Your task to perform on an android device: change the clock display to digital Image 0: 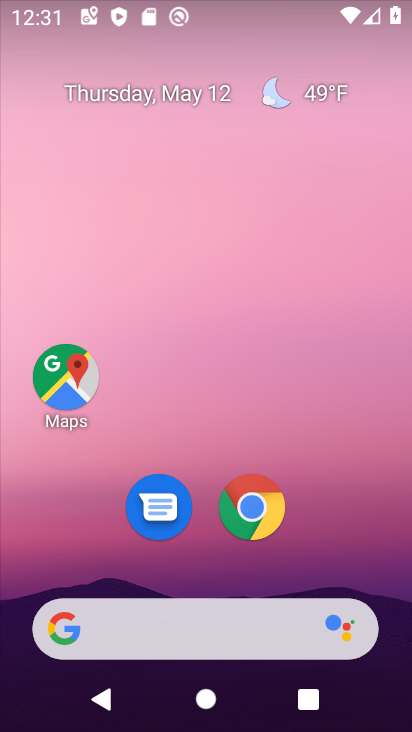
Step 0: drag from (331, 542) to (318, 48)
Your task to perform on an android device: change the clock display to digital Image 1: 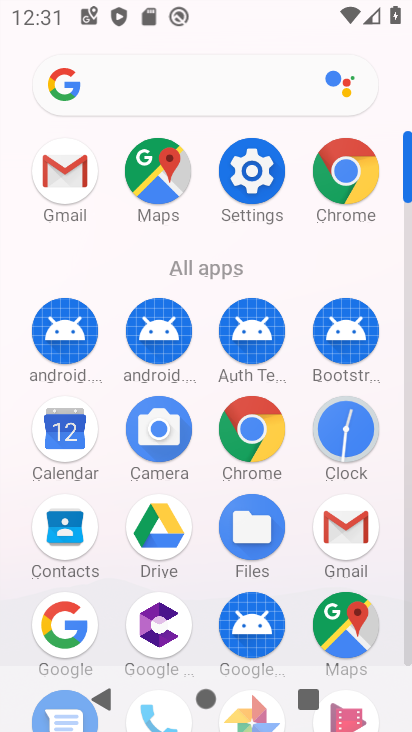
Step 1: click (259, 176)
Your task to perform on an android device: change the clock display to digital Image 2: 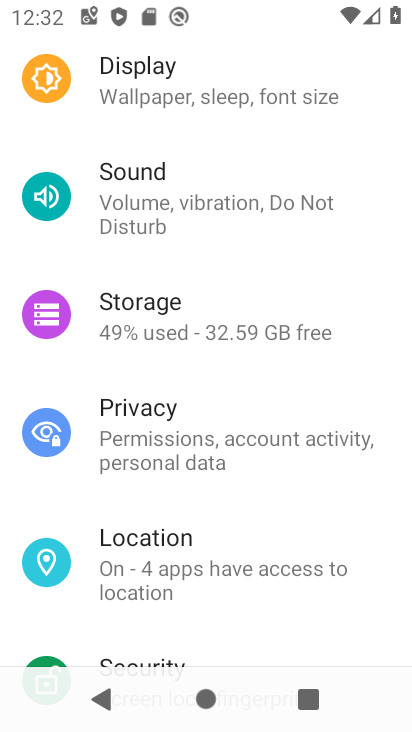
Step 2: press home button
Your task to perform on an android device: change the clock display to digital Image 3: 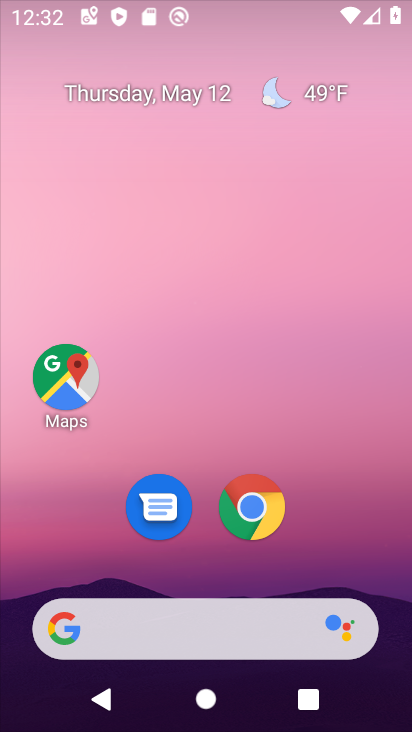
Step 3: drag from (292, 581) to (297, 11)
Your task to perform on an android device: change the clock display to digital Image 4: 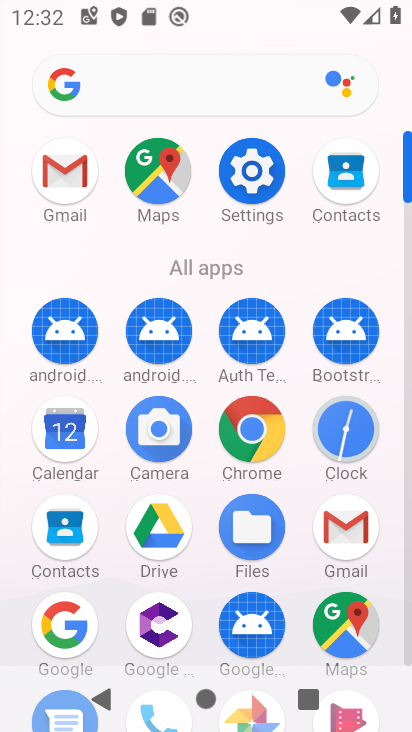
Step 4: click (353, 418)
Your task to perform on an android device: change the clock display to digital Image 5: 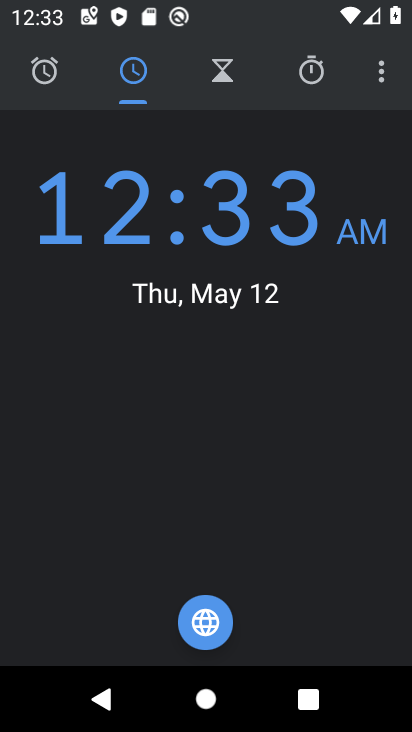
Step 5: click (371, 88)
Your task to perform on an android device: change the clock display to digital Image 6: 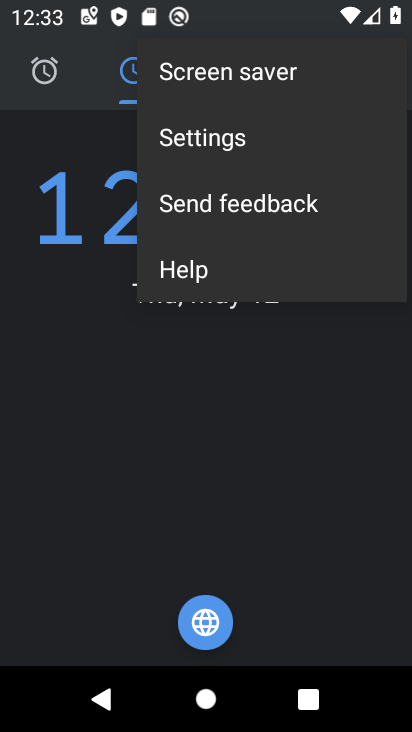
Step 6: click (253, 128)
Your task to perform on an android device: change the clock display to digital Image 7: 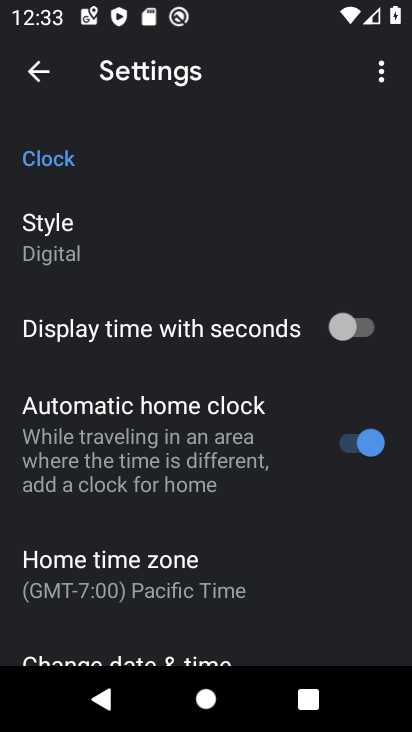
Step 7: click (99, 260)
Your task to perform on an android device: change the clock display to digital Image 8: 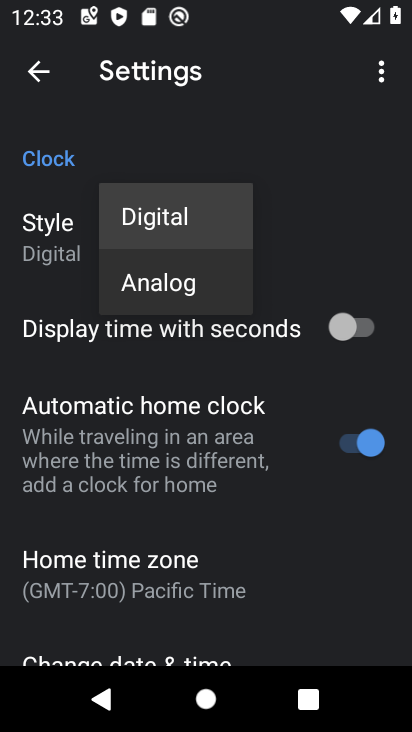
Step 8: click (191, 226)
Your task to perform on an android device: change the clock display to digital Image 9: 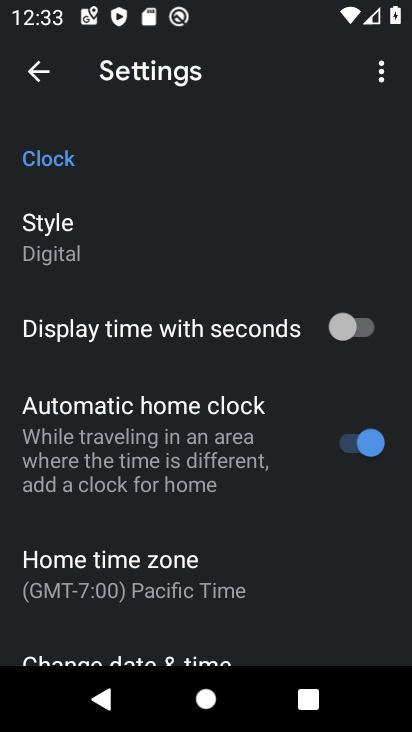
Step 9: task complete